Your task to perform on an android device: Open the calendar and show me this week's events? Image 0: 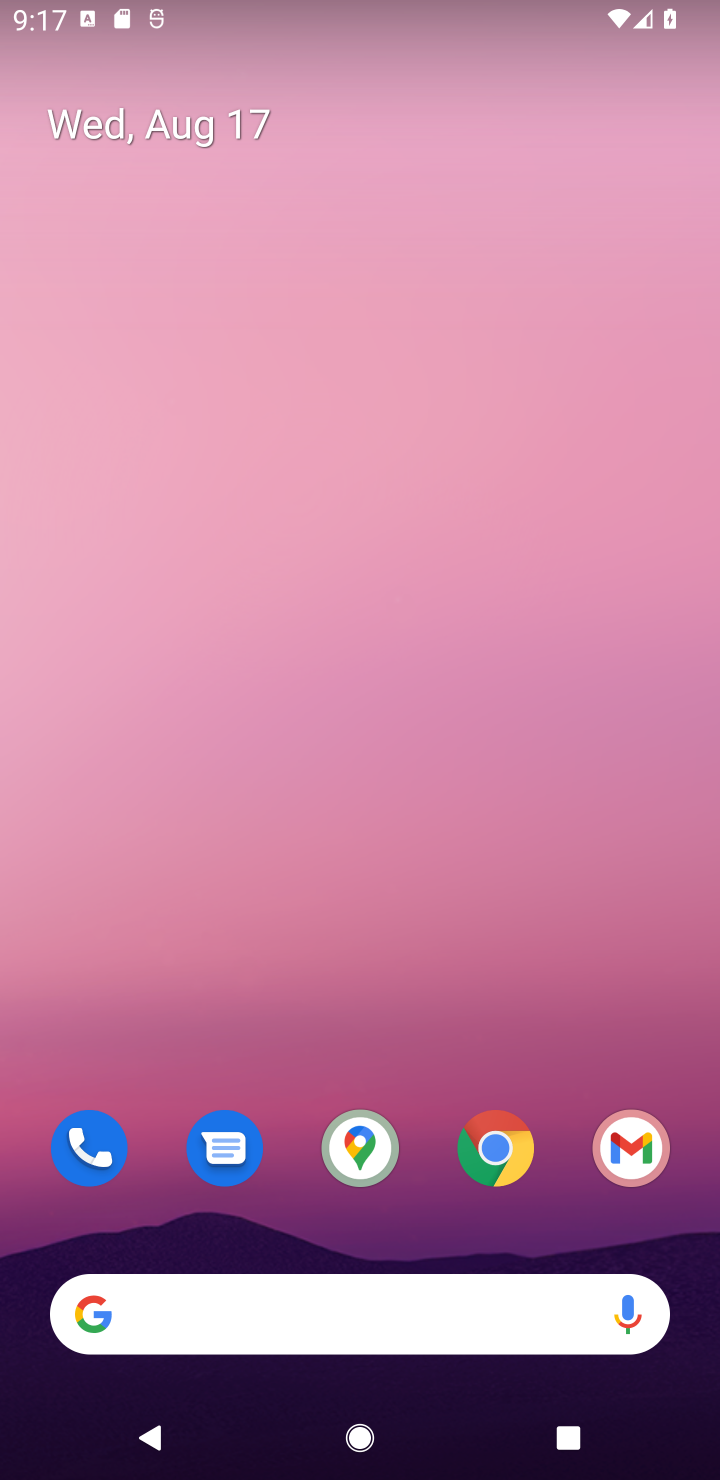
Step 0: drag from (564, 1225) to (506, 175)
Your task to perform on an android device: Open the calendar and show me this week's events? Image 1: 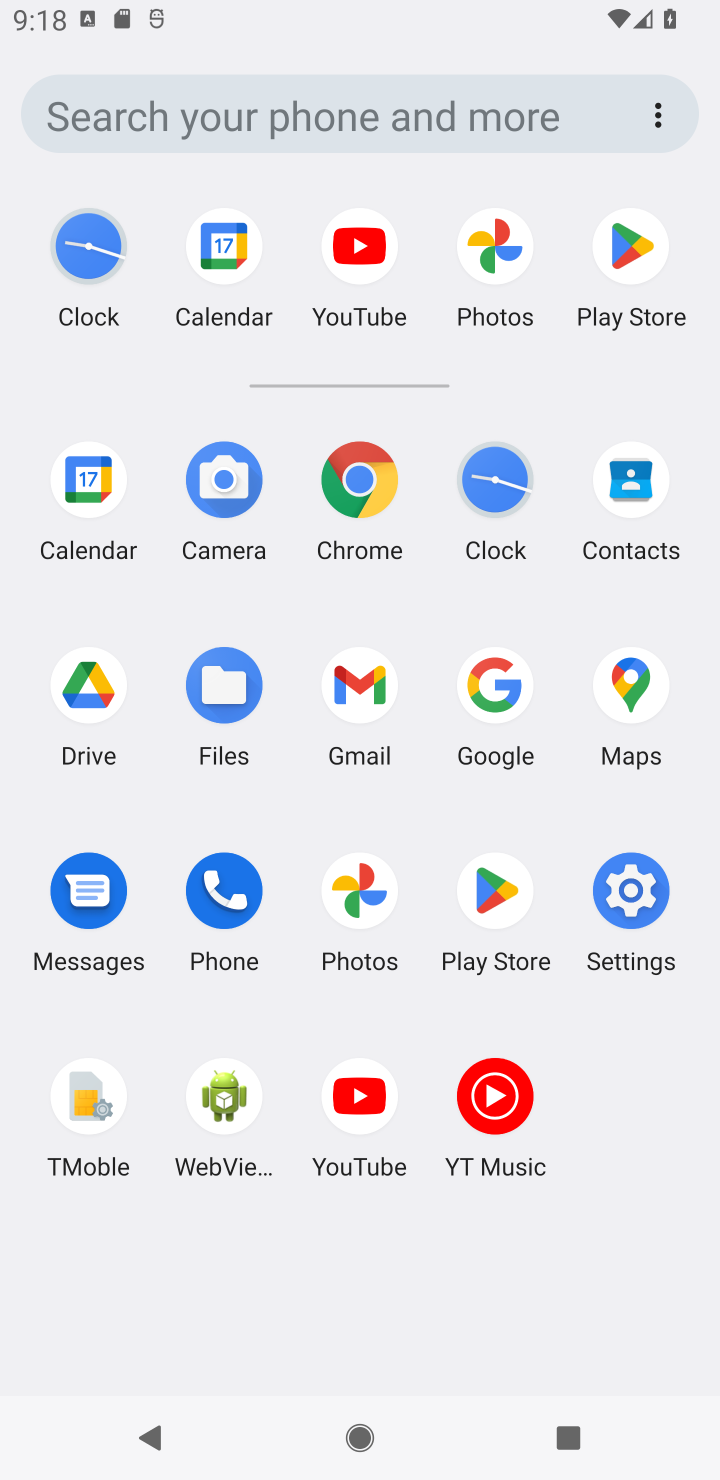
Step 1: click (88, 475)
Your task to perform on an android device: Open the calendar and show me this week's events? Image 2: 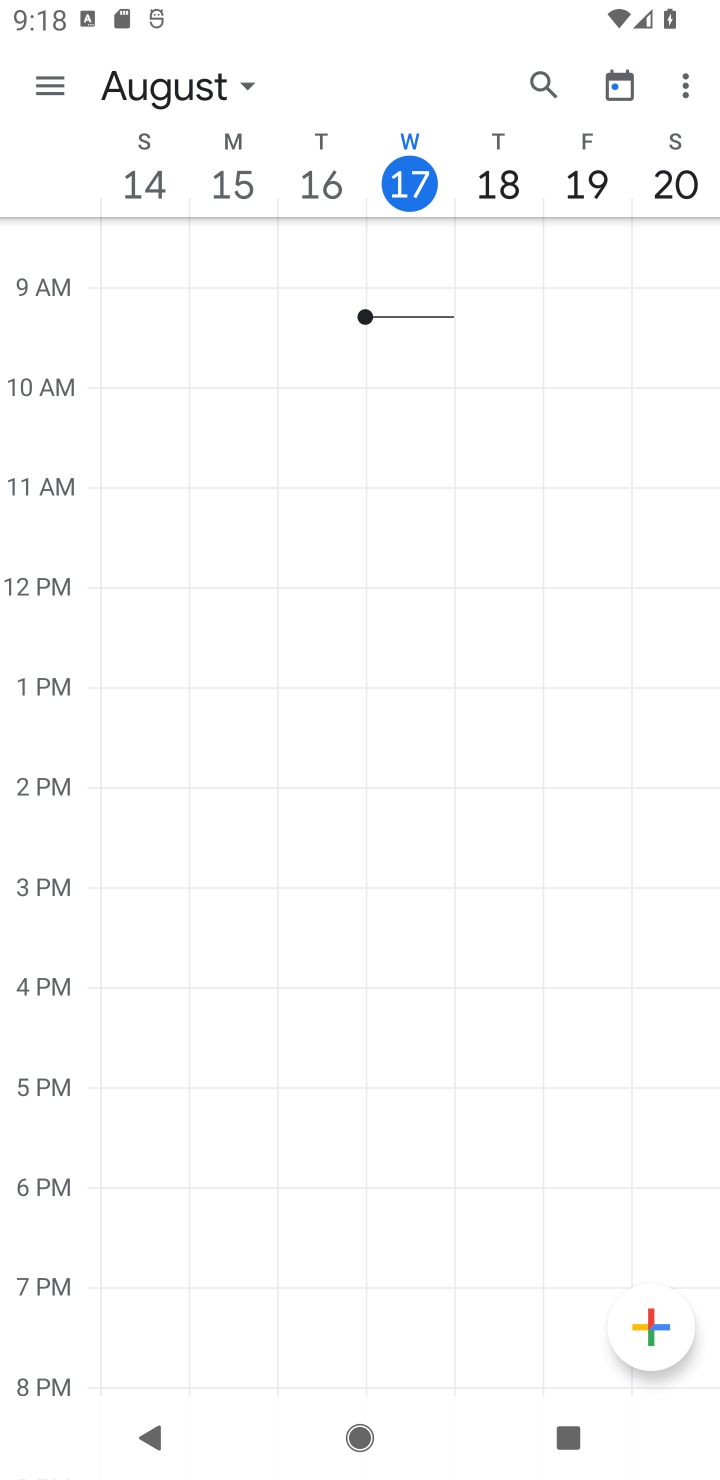
Step 2: task complete